Your task to perform on an android device: find snoozed emails in the gmail app Image 0: 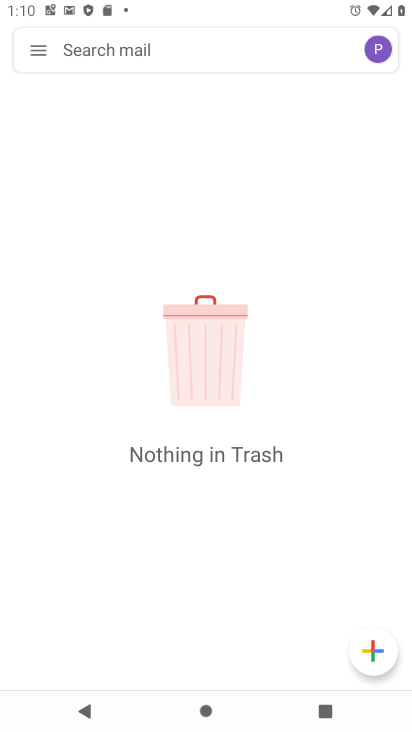
Step 0: press home button
Your task to perform on an android device: find snoozed emails in the gmail app Image 1: 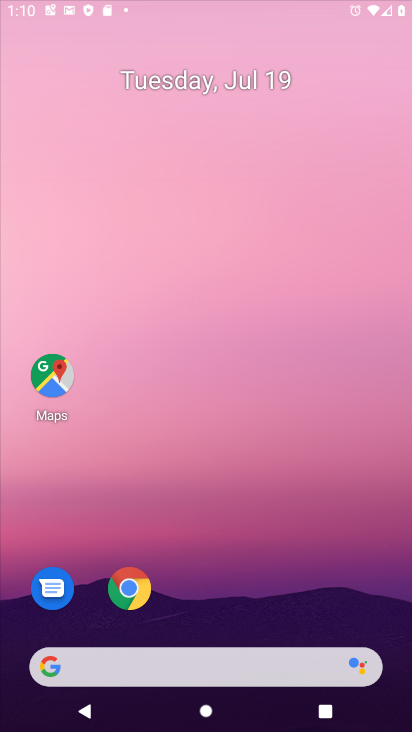
Step 1: drag from (382, 657) to (246, 47)
Your task to perform on an android device: find snoozed emails in the gmail app Image 2: 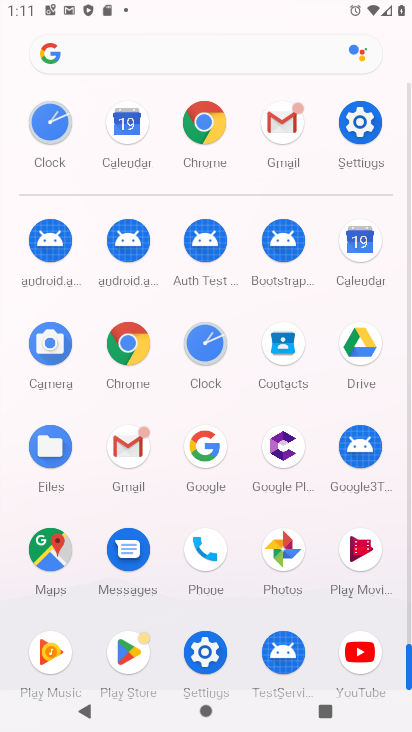
Step 2: click (121, 464)
Your task to perform on an android device: find snoozed emails in the gmail app Image 3: 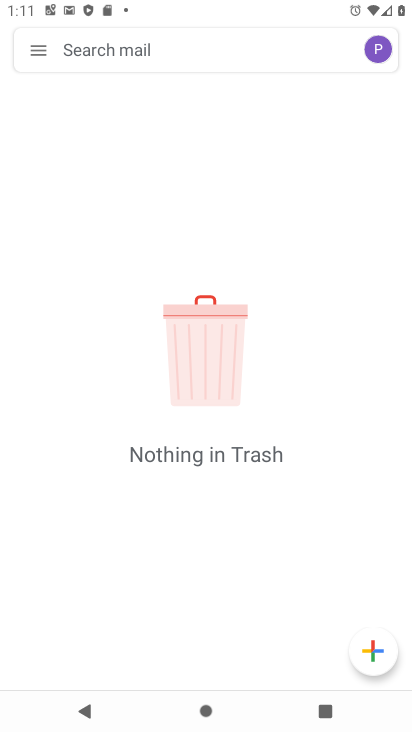
Step 3: click (39, 50)
Your task to perform on an android device: find snoozed emails in the gmail app Image 4: 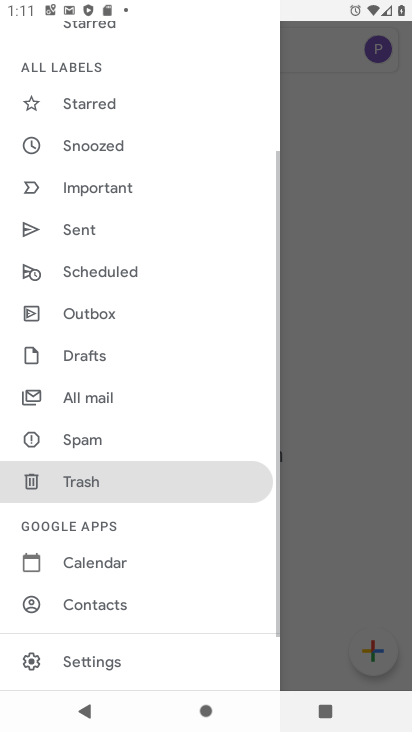
Step 4: click (120, 135)
Your task to perform on an android device: find snoozed emails in the gmail app Image 5: 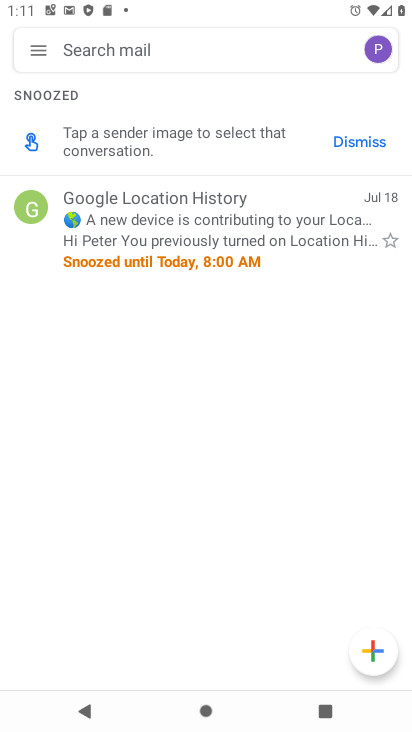
Step 5: task complete